Your task to perform on an android device: What's on my calendar today? Image 0: 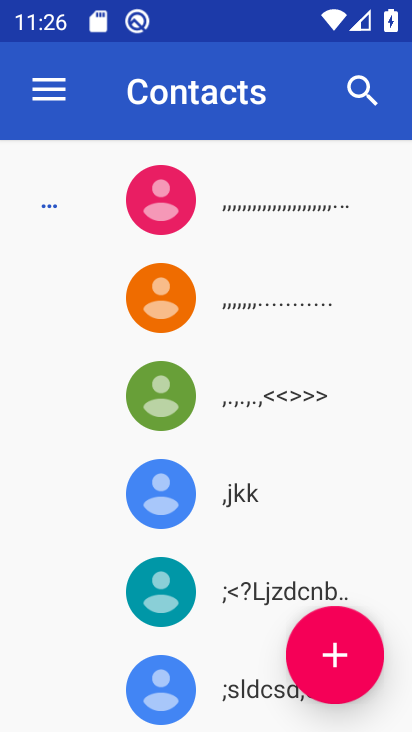
Step 0: press home button
Your task to perform on an android device: What's on my calendar today? Image 1: 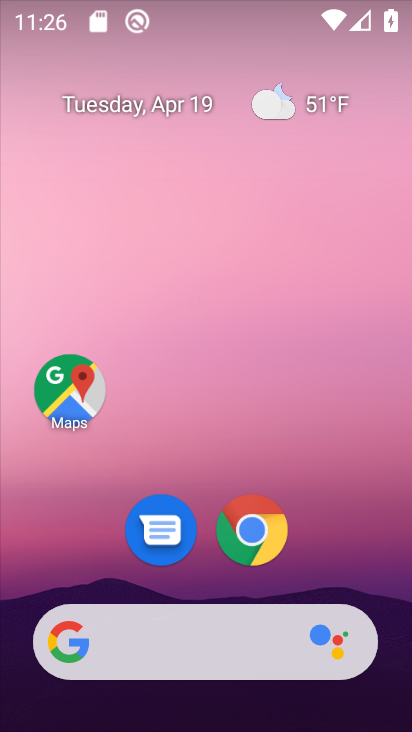
Step 1: drag from (139, 650) to (272, 111)
Your task to perform on an android device: What's on my calendar today? Image 2: 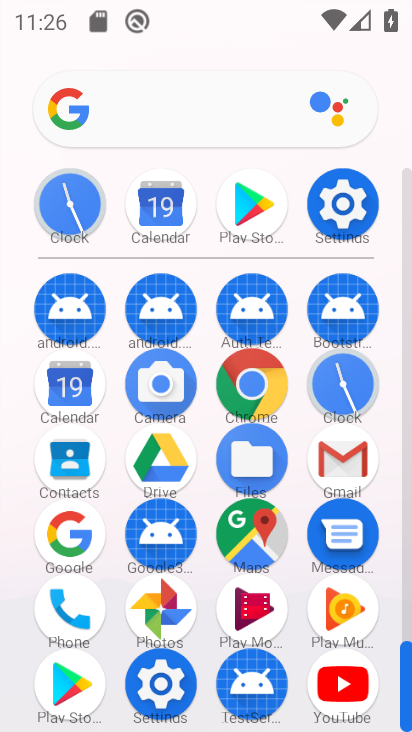
Step 2: click (72, 394)
Your task to perform on an android device: What's on my calendar today? Image 3: 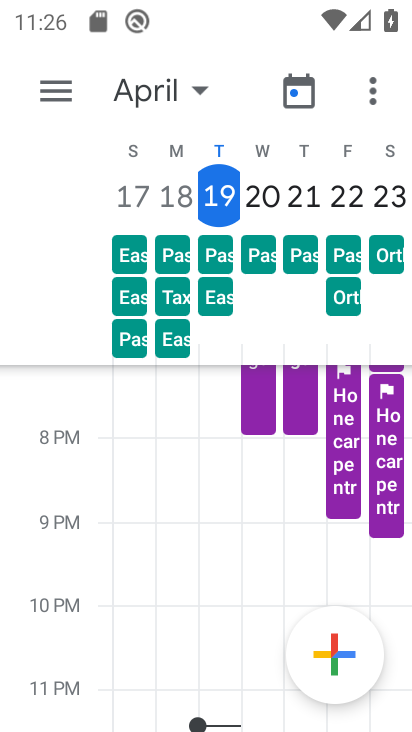
Step 3: click (56, 96)
Your task to perform on an android device: What's on my calendar today? Image 4: 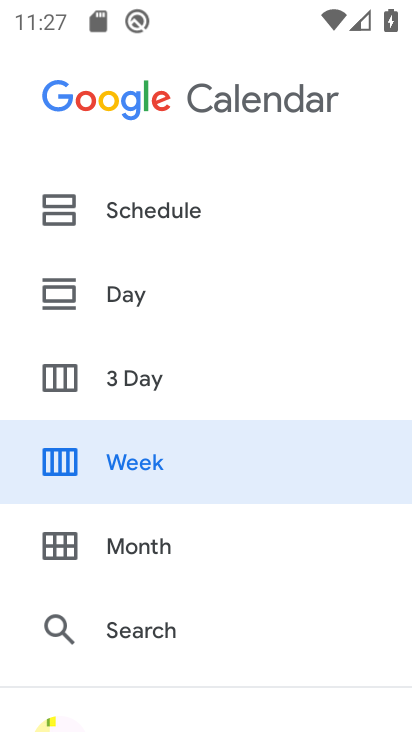
Step 4: click (123, 290)
Your task to perform on an android device: What's on my calendar today? Image 5: 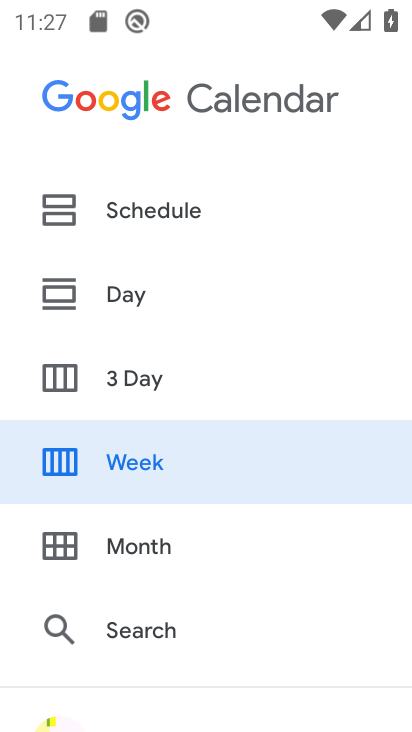
Step 5: click (120, 288)
Your task to perform on an android device: What's on my calendar today? Image 6: 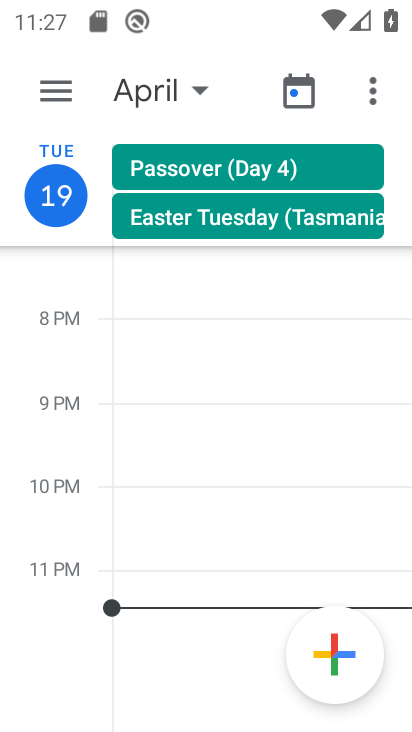
Step 6: drag from (184, 483) to (277, 233)
Your task to perform on an android device: What's on my calendar today? Image 7: 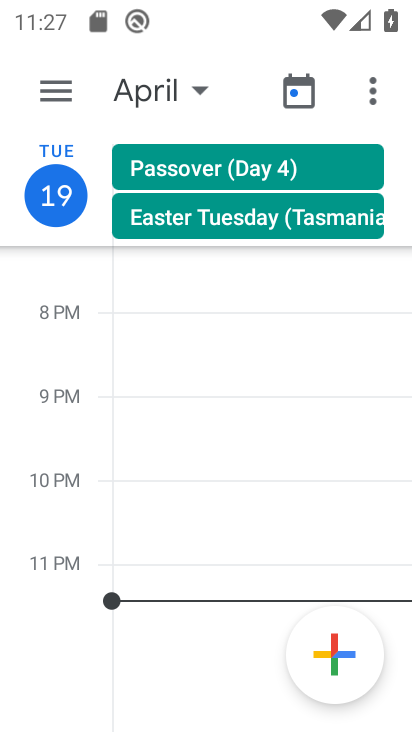
Step 7: click (207, 214)
Your task to perform on an android device: What's on my calendar today? Image 8: 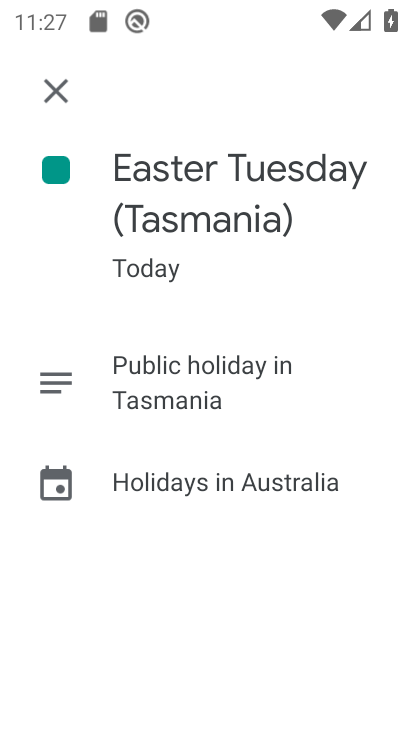
Step 8: task complete